Your task to perform on an android device: turn on notifications settings in the gmail app Image 0: 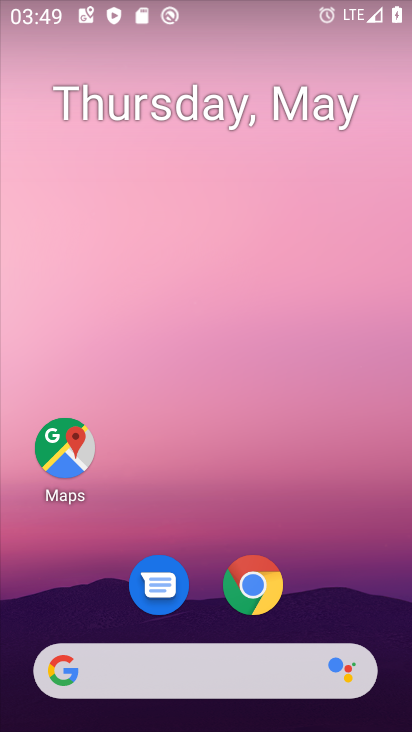
Step 0: drag from (245, 495) to (278, 49)
Your task to perform on an android device: turn on notifications settings in the gmail app Image 1: 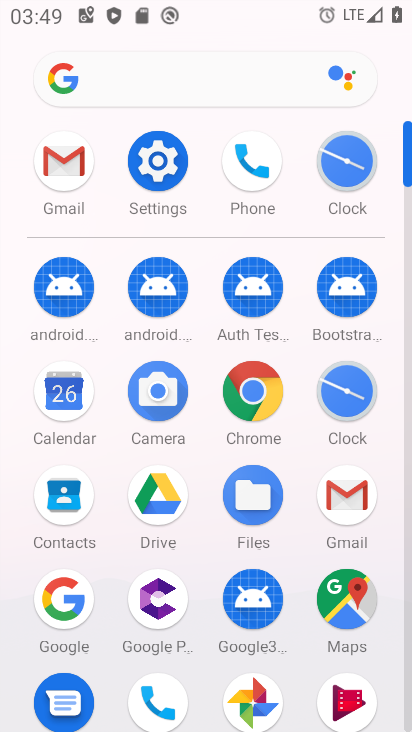
Step 1: click (81, 165)
Your task to perform on an android device: turn on notifications settings in the gmail app Image 2: 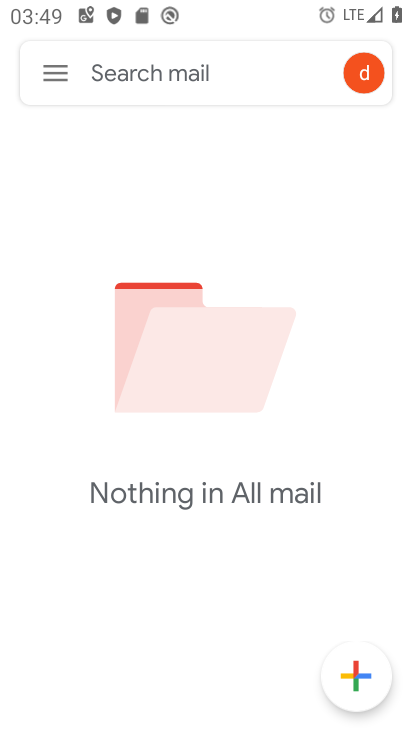
Step 2: click (51, 66)
Your task to perform on an android device: turn on notifications settings in the gmail app Image 3: 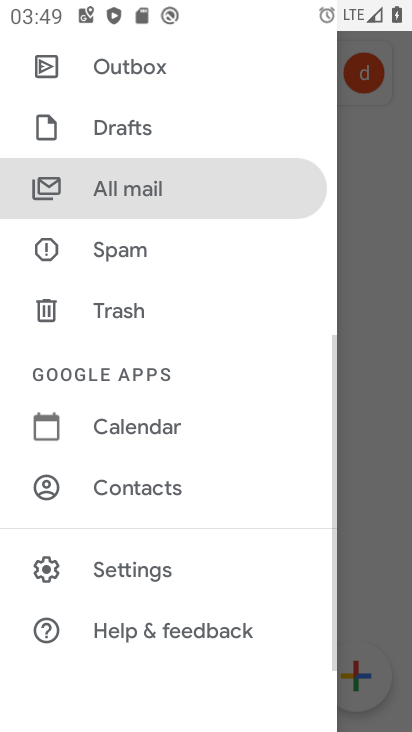
Step 3: click (117, 563)
Your task to perform on an android device: turn on notifications settings in the gmail app Image 4: 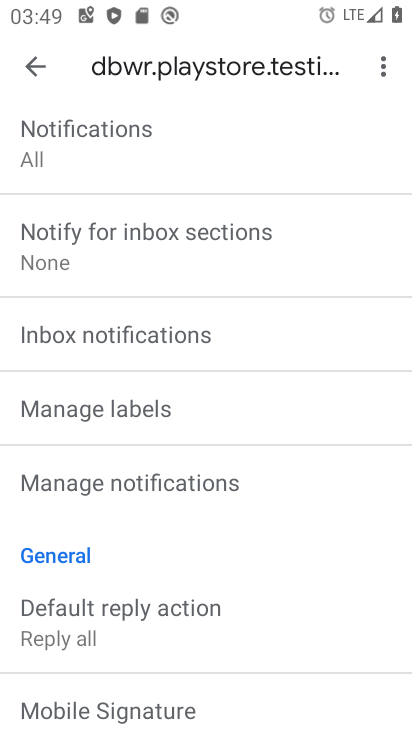
Step 4: click (220, 473)
Your task to perform on an android device: turn on notifications settings in the gmail app Image 5: 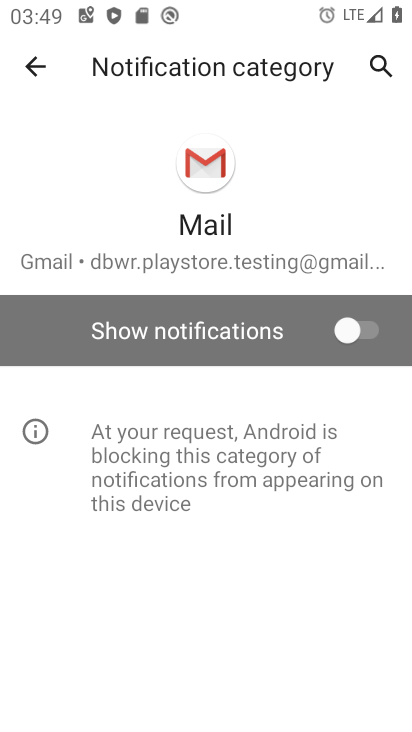
Step 5: click (365, 330)
Your task to perform on an android device: turn on notifications settings in the gmail app Image 6: 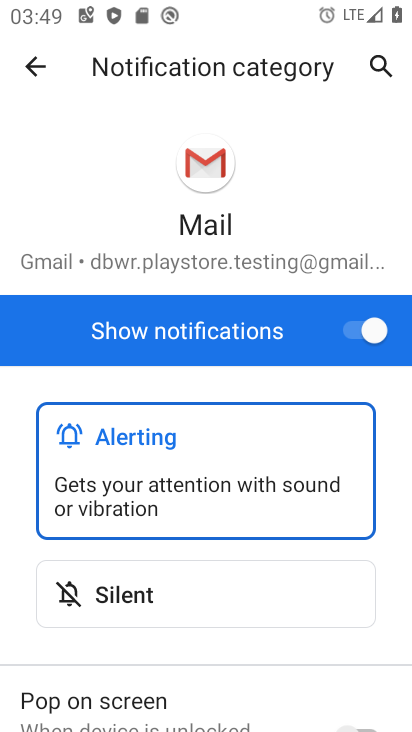
Step 6: task complete